Your task to perform on an android device: turn on airplane mode Image 0: 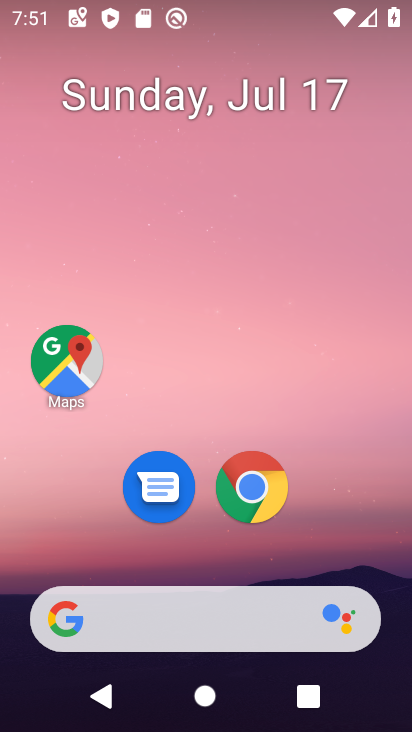
Step 0: drag from (338, 12) to (260, 564)
Your task to perform on an android device: turn on airplane mode Image 1: 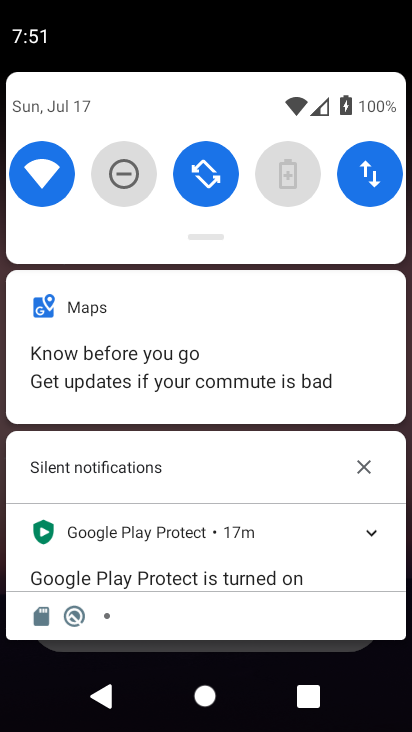
Step 1: drag from (217, 241) to (213, 675)
Your task to perform on an android device: turn on airplane mode Image 2: 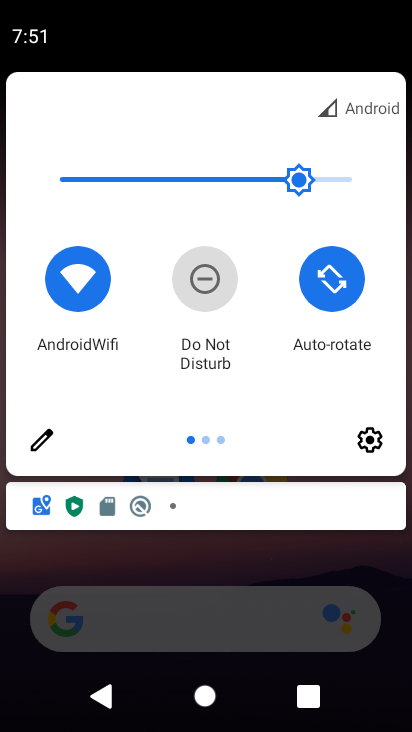
Step 2: drag from (363, 302) to (14, 260)
Your task to perform on an android device: turn on airplane mode Image 3: 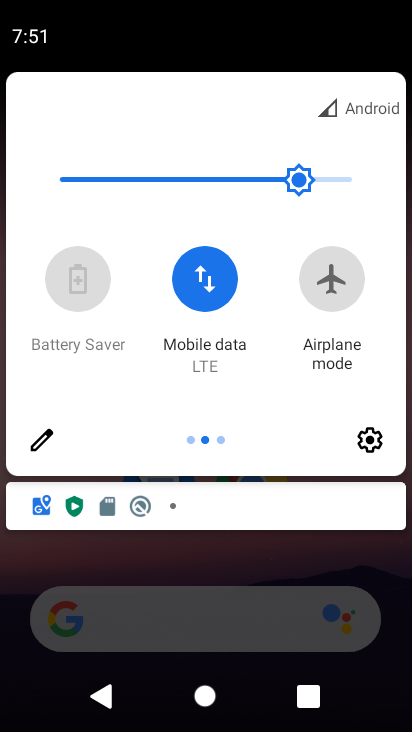
Step 3: click (333, 274)
Your task to perform on an android device: turn on airplane mode Image 4: 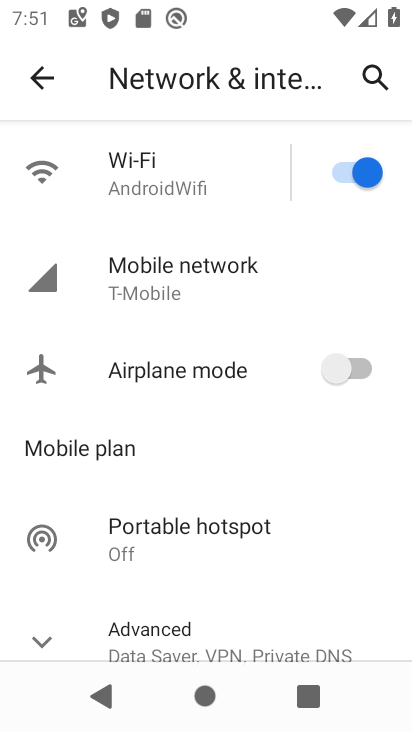
Step 4: task complete